Your task to perform on an android device: turn pop-ups off in chrome Image 0: 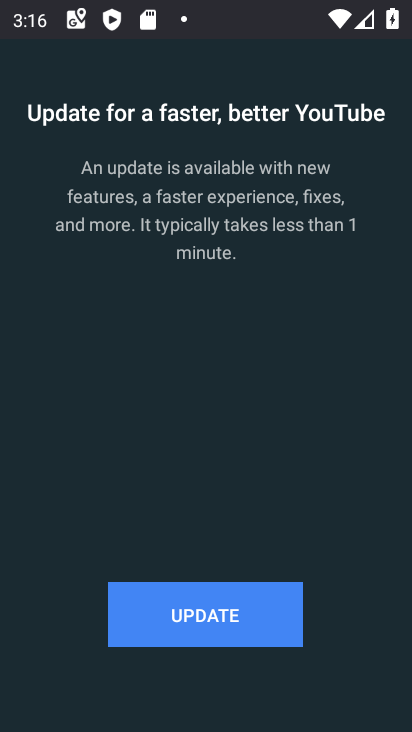
Step 0: press home button
Your task to perform on an android device: turn pop-ups off in chrome Image 1: 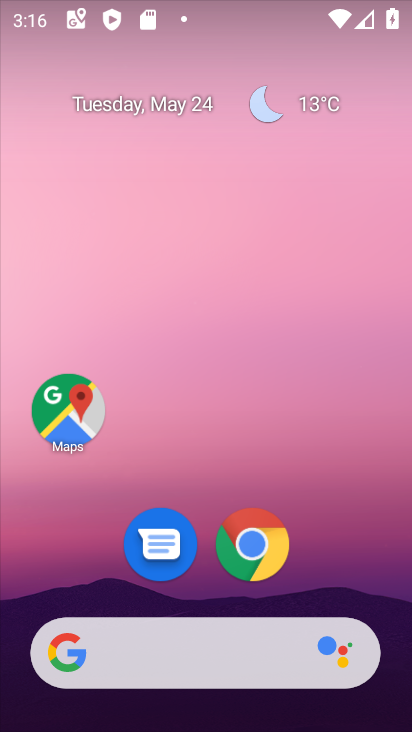
Step 1: click (136, 348)
Your task to perform on an android device: turn pop-ups off in chrome Image 2: 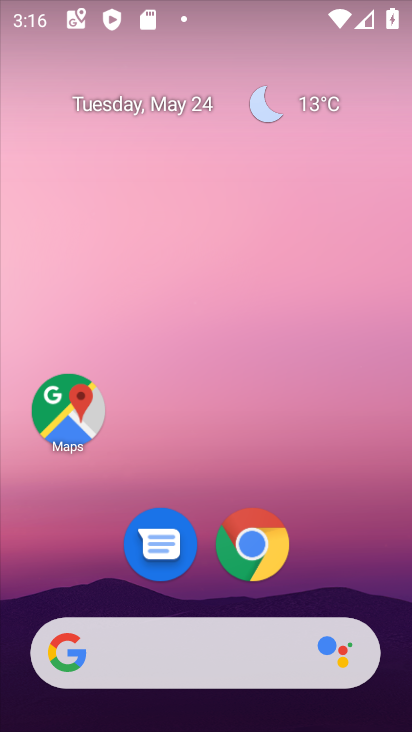
Step 2: click (136, 348)
Your task to perform on an android device: turn pop-ups off in chrome Image 3: 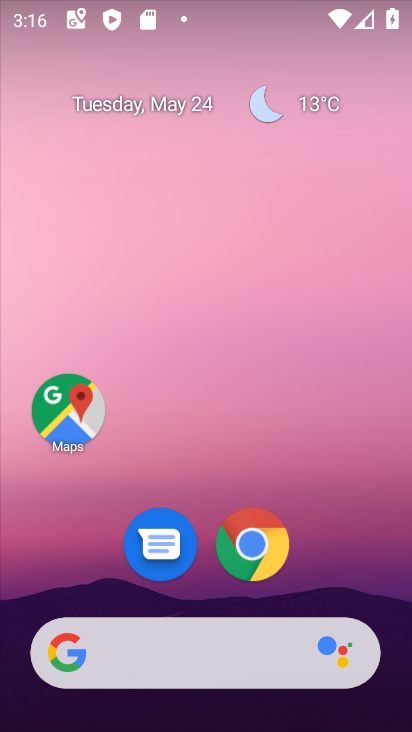
Step 3: drag from (364, 581) to (310, 43)
Your task to perform on an android device: turn pop-ups off in chrome Image 4: 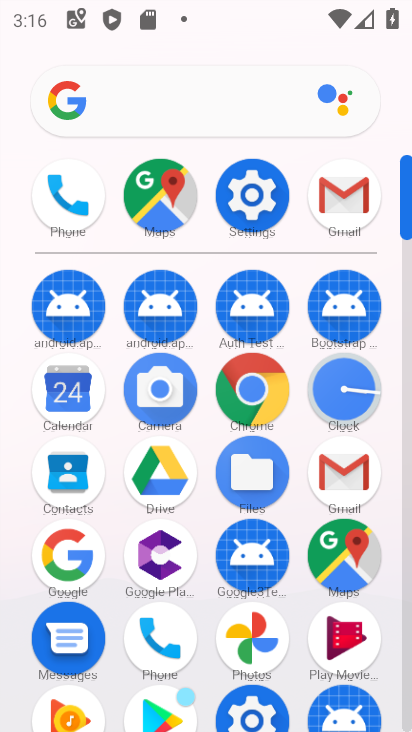
Step 4: click (259, 396)
Your task to perform on an android device: turn pop-ups off in chrome Image 5: 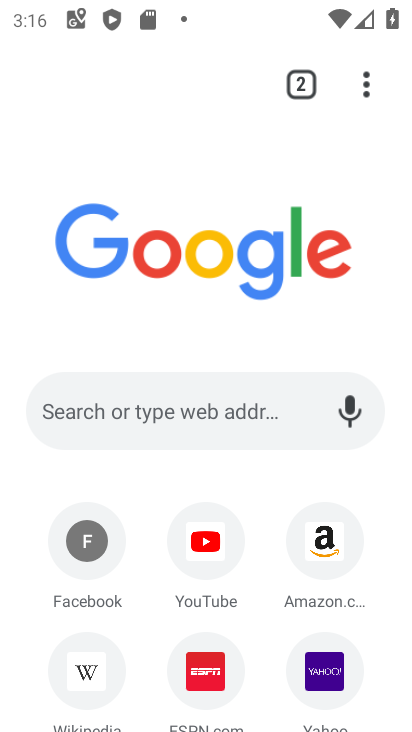
Step 5: drag from (369, 95) to (124, 596)
Your task to perform on an android device: turn pop-ups off in chrome Image 6: 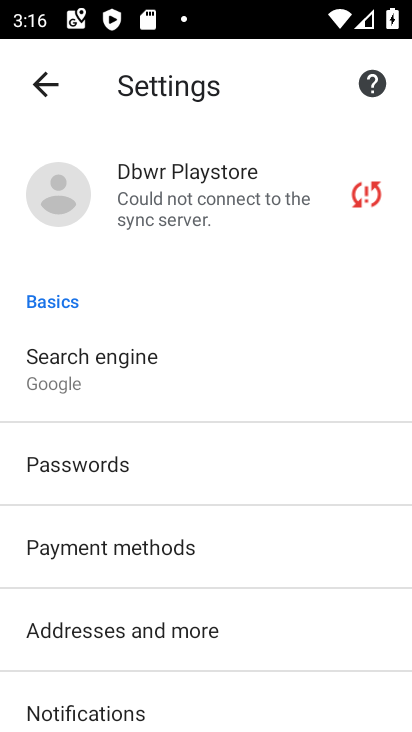
Step 6: drag from (158, 643) to (164, 241)
Your task to perform on an android device: turn pop-ups off in chrome Image 7: 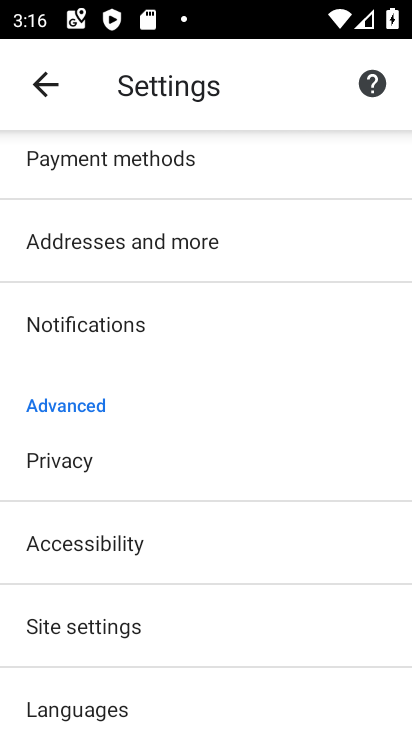
Step 7: drag from (141, 606) to (168, 325)
Your task to perform on an android device: turn pop-ups off in chrome Image 8: 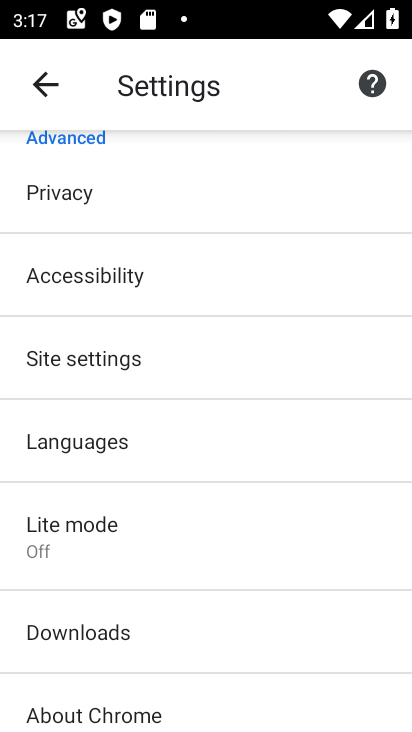
Step 8: click (108, 375)
Your task to perform on an android device: turn pop-ups off in chrome Image 9: 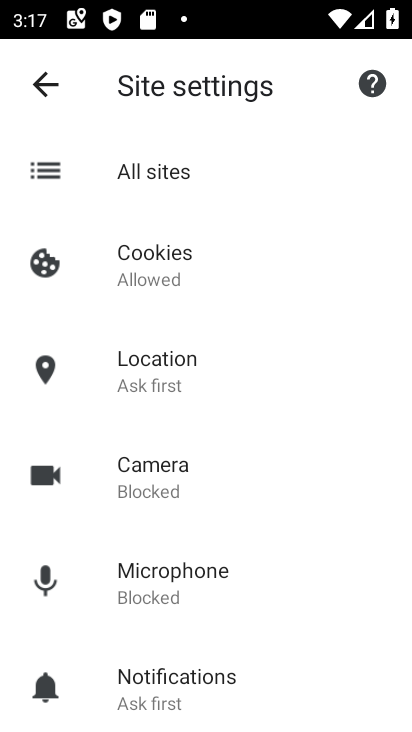
Step 9: drag from (221, 630) to (222, 216)
Your task to perform on an android device: turn pop-ups off in chrome Image 10: 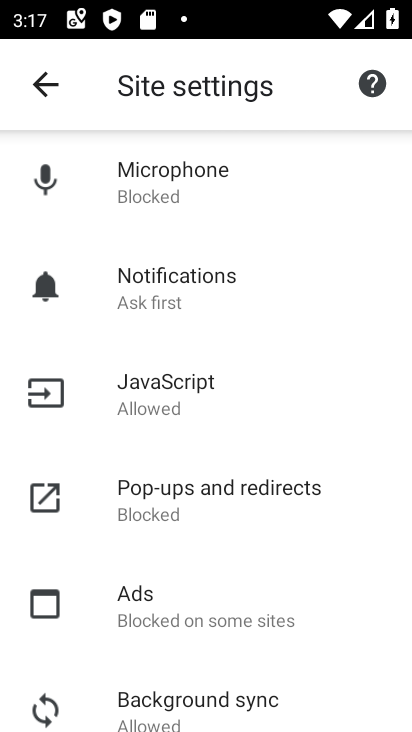
Step 10: click (210, 523)
Your task to perform on an android device: turn pop-ups off in chrome Image 11: 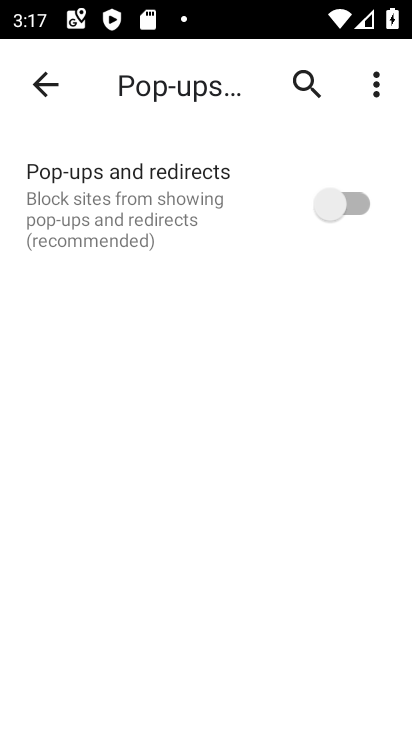
Step 11: task complete